Your task to perform on an android device: toggle translation in the chrome app Image 0: 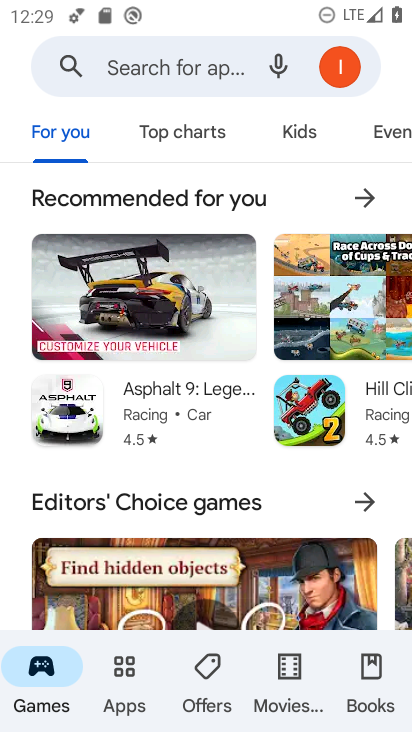
Step 0: press home button
Your task to perform on an android device: toggle translation in the chrome app Image 1: 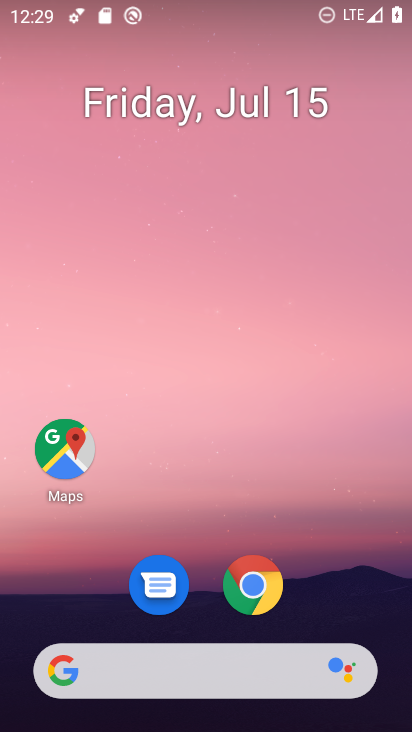
Step 1: click (269, 593)
Your task to perform on an android device: toggle translation in the chrome app Image 2: 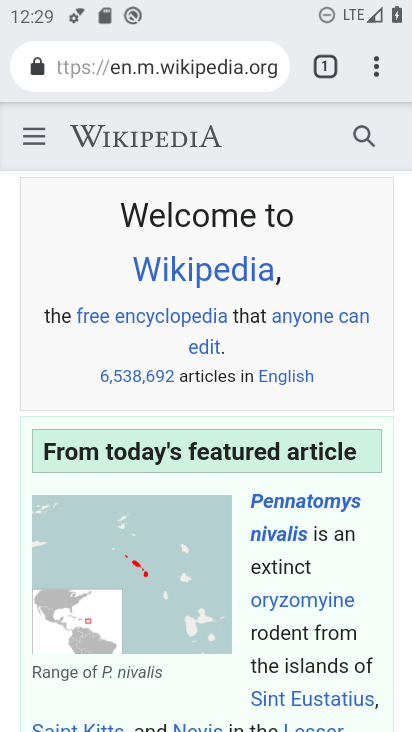
Step 2: click (373, 68)
Your task to perform on an android device: toggle translation in the chrome app Image 3: 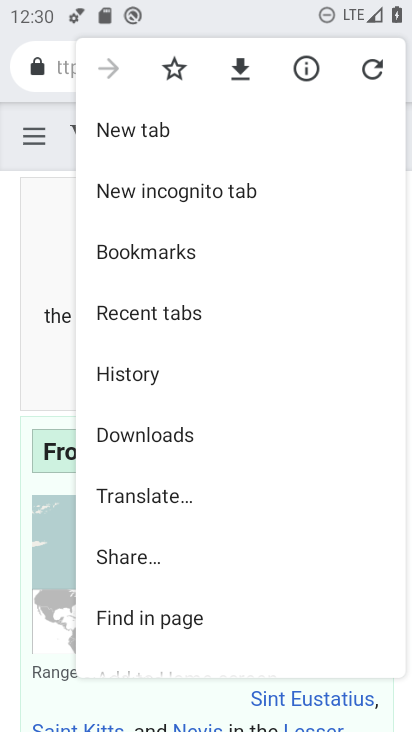
Step 3: drag from (214, 520) to (238, 221)
Your task to perform on an android device: toggle translation in the chrome app Image 4: 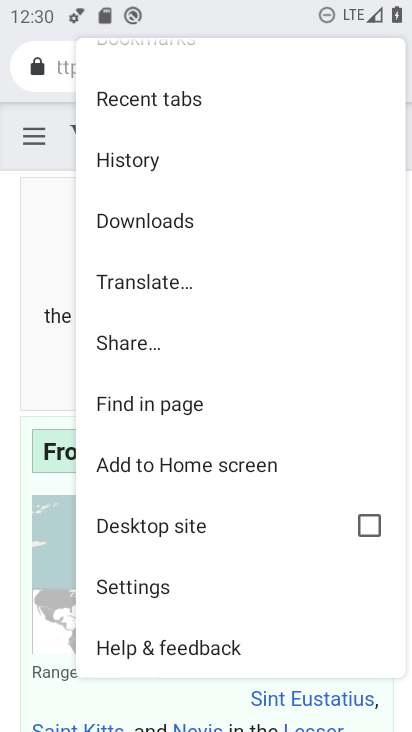
Step 4: click (149, 583)
Your task to perform on an android device: toggle translation in the chrome app Image 5: 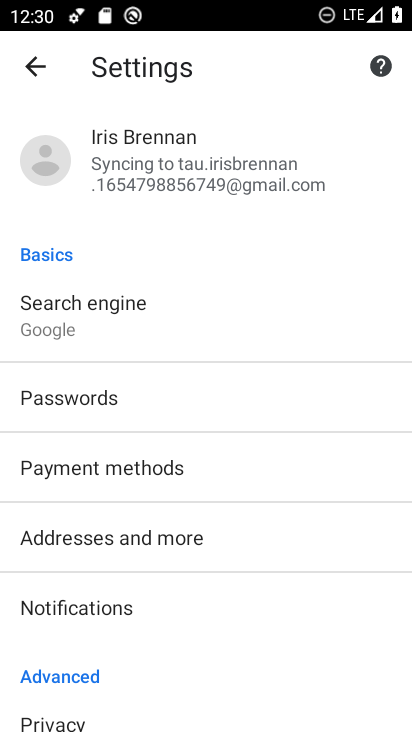
Step 5: drag from (255, 593) to (322, 82)
Your task to perform on an android device: toggle translation in the chrome app Image 6: 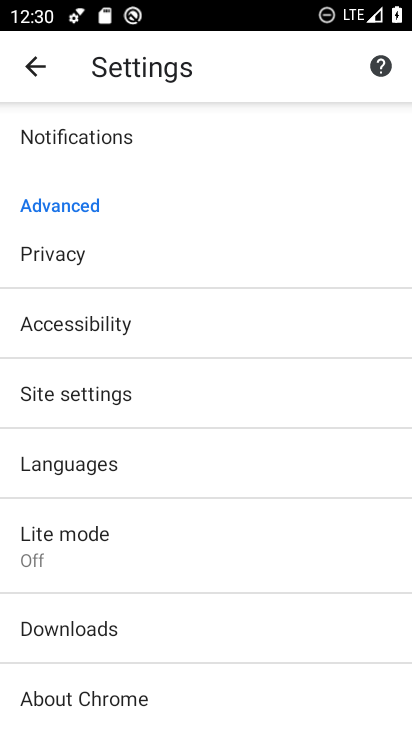
Step 6: click (187, 461)
Your task to perform on an android device: toggle translation in the chrome app Image 7: 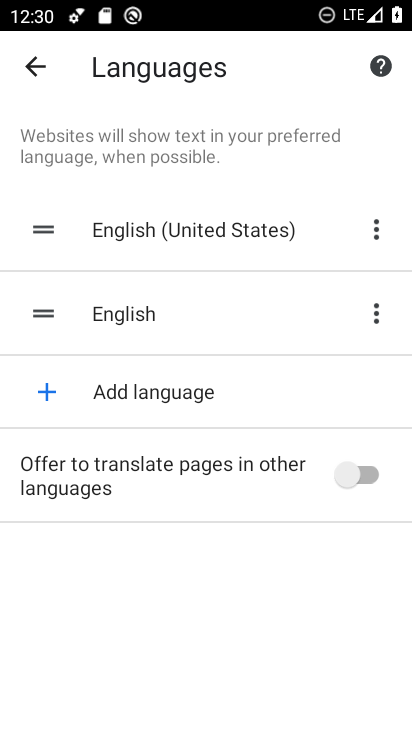
Step 7: click (355, 464)
Your task to perform on an android device: toggle translation in the chrome app Image 8: 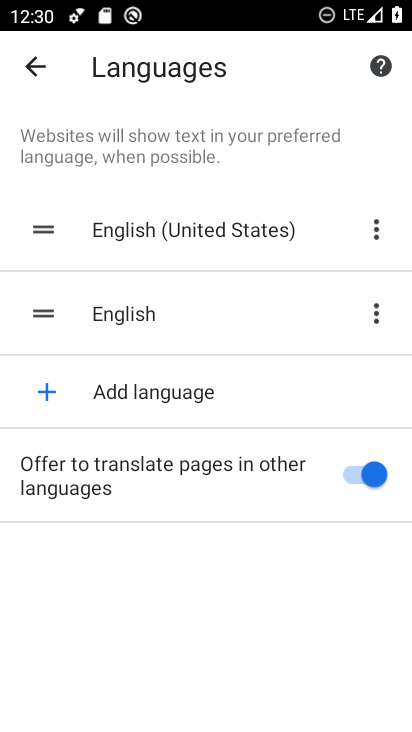
Step 8: task complete